Your task to perform on an android device: Open calendar and show me the first week of next month Image 0: 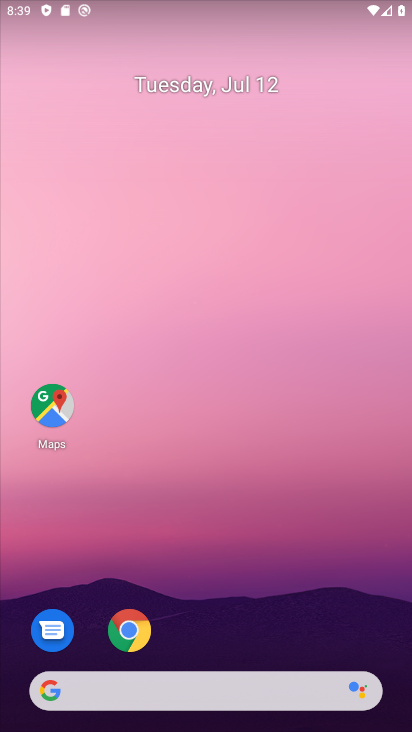
Step 0: press home button
Your task to perform on an android device: Open calendar and show me the first week of next month Image 1: 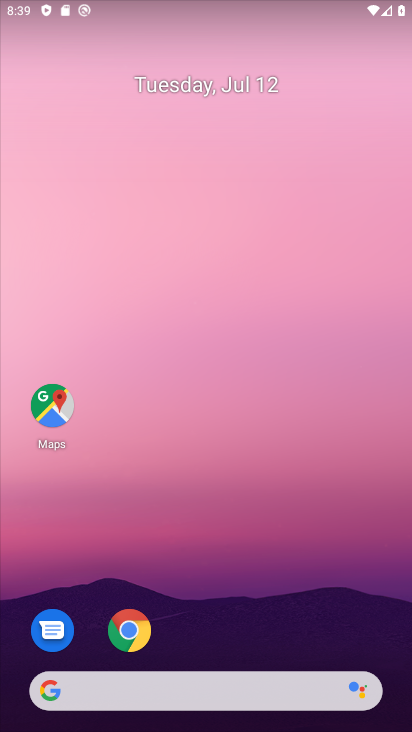
Step 1: drag from (255, 621) to (282, 15)
Your task to perform on an android device: Open calendar and show me the first week of next month Image 2: 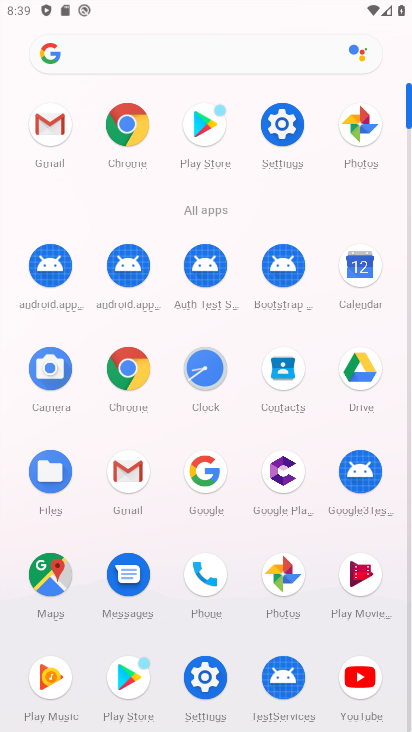
Step 2: click (367, 277)
Your task to perform on an android device: Open calendar and show me the first week of next month Image 3: 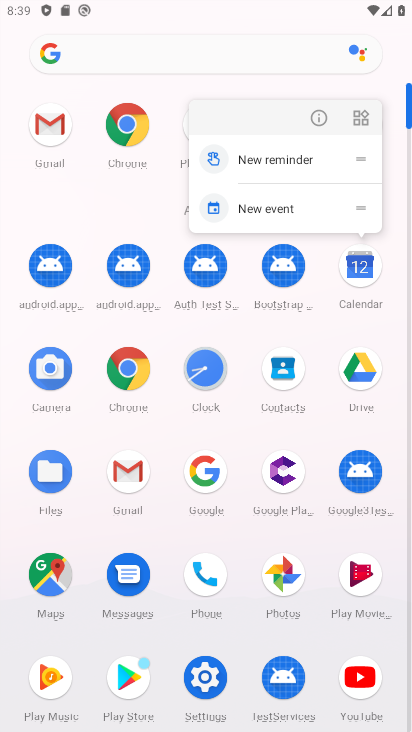
Step 3: click (367, 277)
Your task to perform on an android device: Open calendar and show me the first week of next month Image 4: 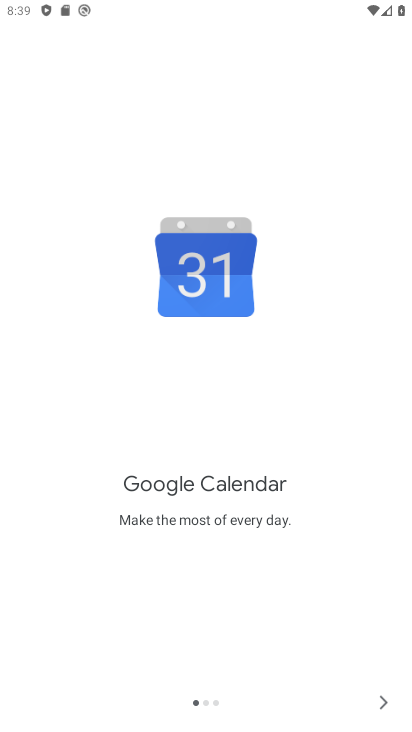
Step 4: click (384, 699)
Your task to perform on an android device: Open calendar and show me the first week of next month Image 5: 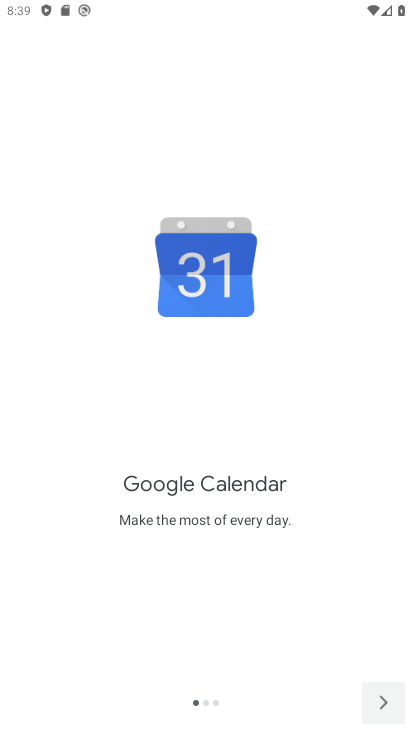
Step 5: click (384, 699)
Your task to perform on an android device: Open calendar and show me the first week of next month Image 6: 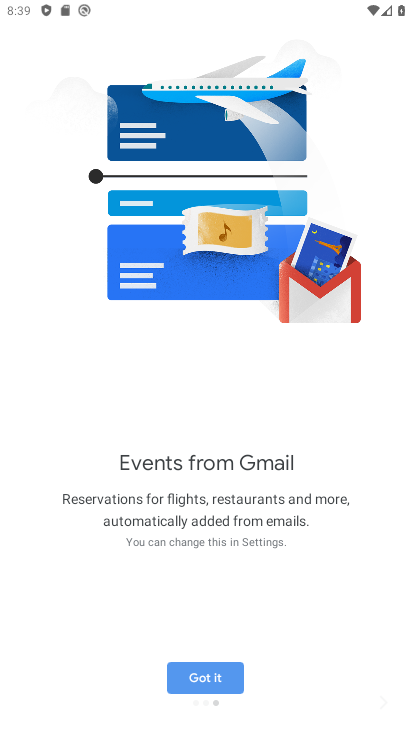
Step 6: click (384, 699)
Your task to perform on an android device: Open calendar and show me the first week of next month Image 7: 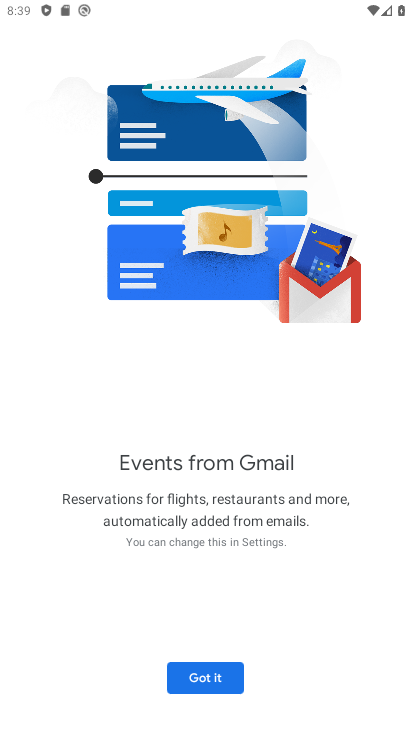
Step 7: click (384, 699)
Your task to perform on an android device: Open calendar and show me the first week of next month Image 8: 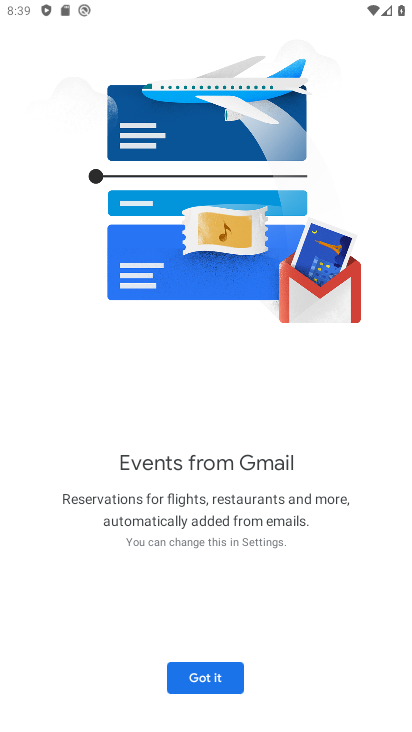
Step 8: click (225, 673)
Your task to perform on an android device: Open calendar and show me the first week of next month Image 9: 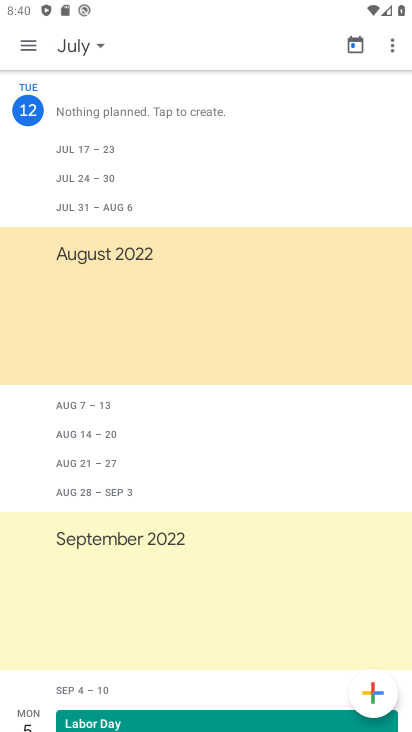
Step 9: click (21, 52)
Your task to perform on an android device: Open calendar and show me the first week of next month Image 10: 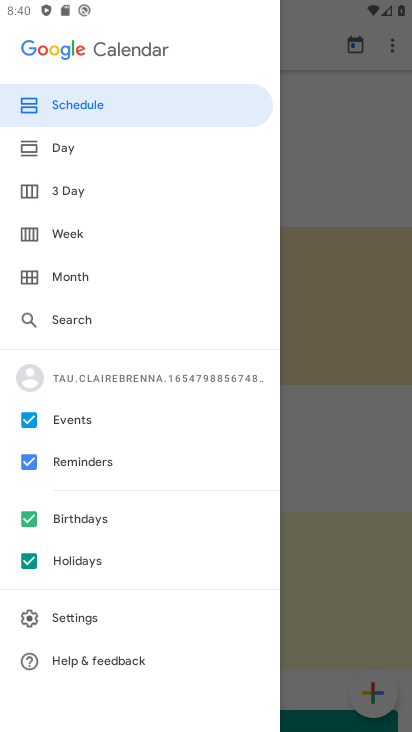
Step 10: click (78, 276)
Your task to perform on an android device: Open calendar and show me the first week of next month Image 11: 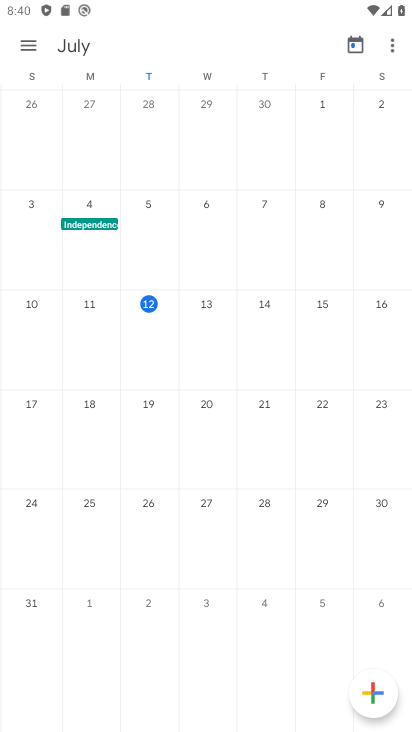
Step 11: task complete